Your task to perform on an android device: Go to notification settings Image 0: 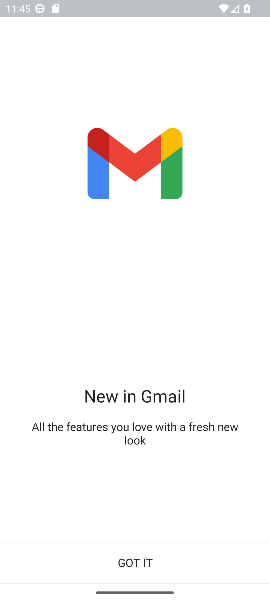
Step 0: press home button
Your task to perform on an android device: Go to notification settings Image 1: 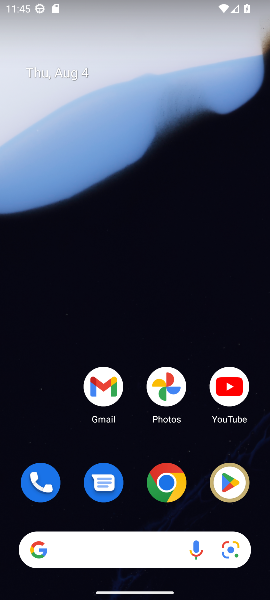
Step 1: drag from (138, 455) to (158, 177)
Your task to perform on an android device: Go to notification settings Image 2: 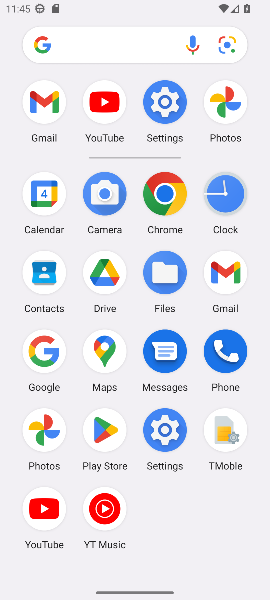
Step 2: click (162, 106)
Your task to perform on an android device: Go to notification settings Image 3: 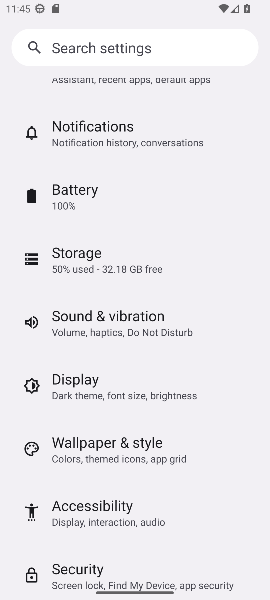
Step 3: click (149, 129)
Your task to perform on an android device: Go to notification settings Image 4: 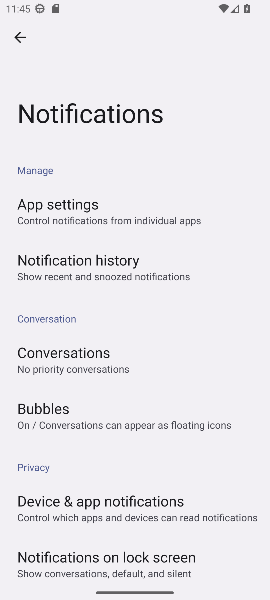
Step 4: task complete